Your task to perform on an android device: install app "Skype" Image 0: 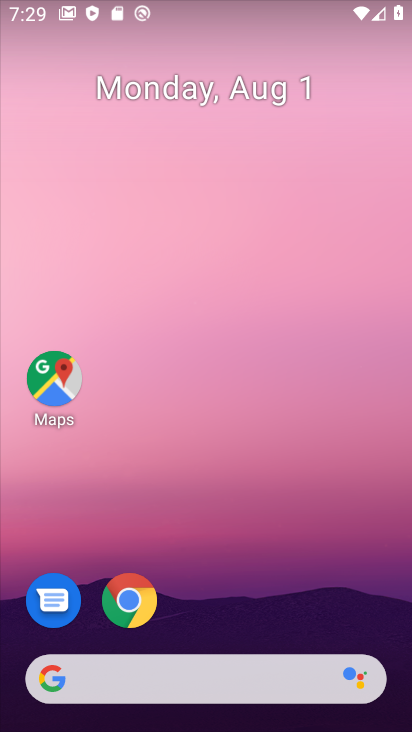
Step 0: drag from (200, 604) to (202, 31)
Your task to perform on an android device: install app "Skype" Image 1: 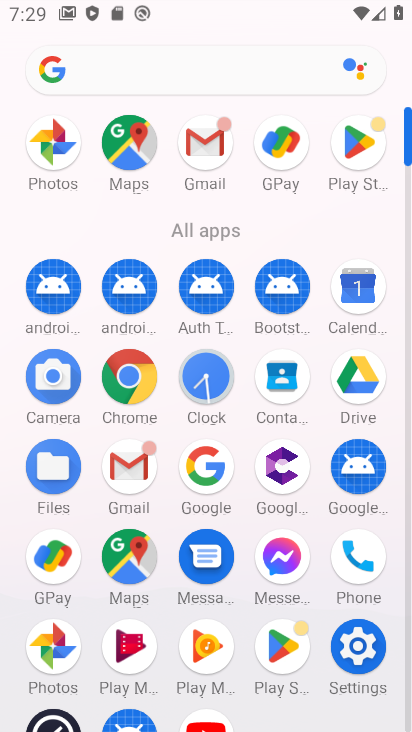
Step 1: click (349, 187)
Your task to perform on an android device: install app "Skype" Image 2: 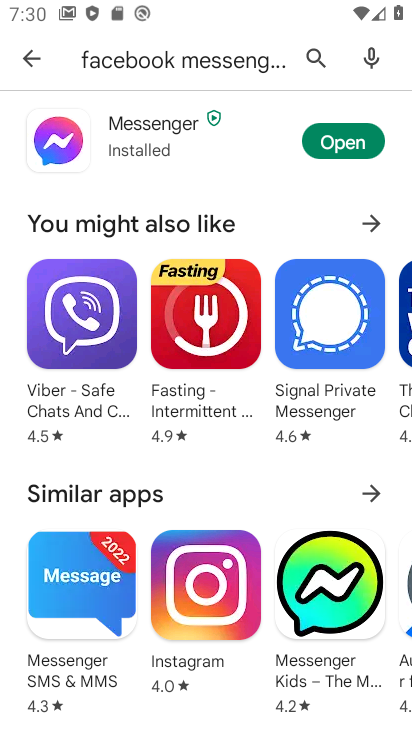
Step 2: click (30, 54)
Your task to perform on an android device: install app "Skype" Image 3: 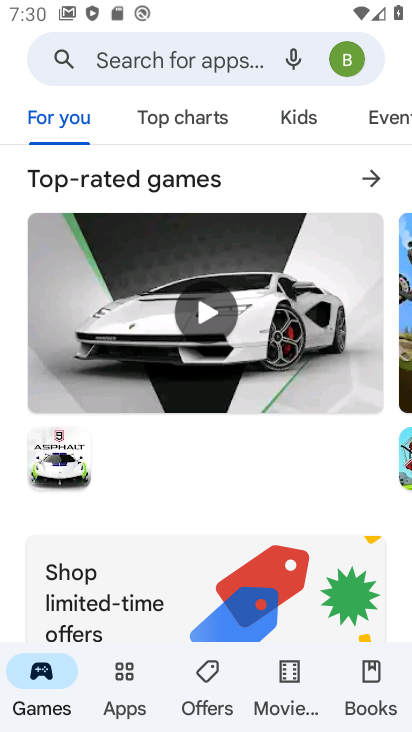
Step 3: click (148, 69)
Your task to perform on an android device: install app "Skype" Image 4: 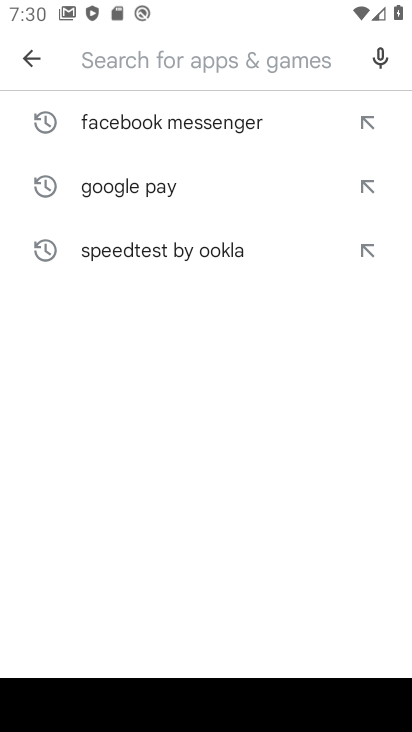
Step 4: type "Skype"
Your task to perform on an android device: install app "Skype" Image 5: 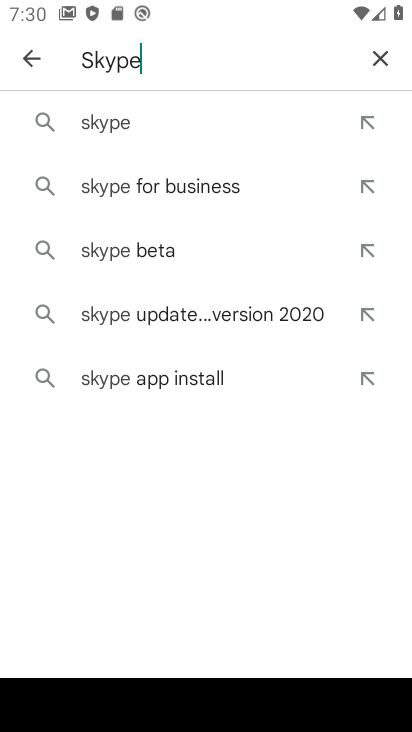
Step 5: click (106, 130)
Your task to perform on an android device: install app "Skype" Image 6: 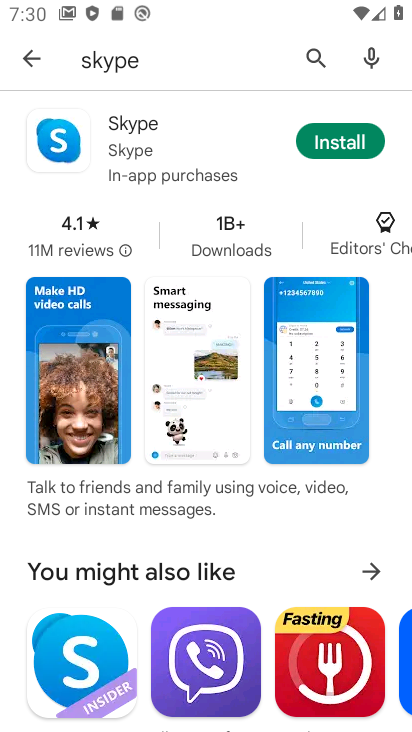
Step 6: click (358, 141)
Your task to perform on an android device: install app "Skype" Image 7: 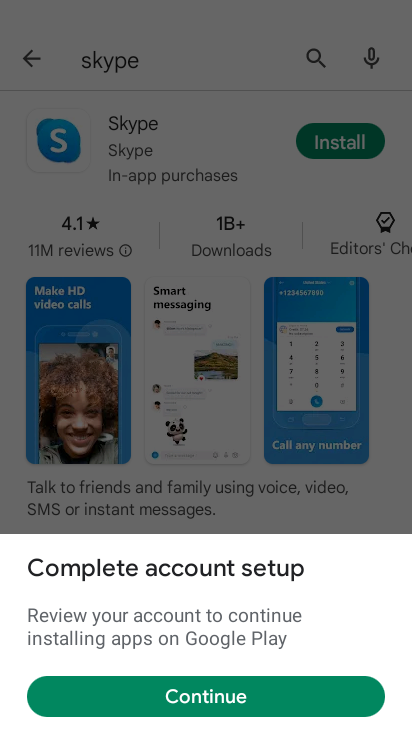
Step 7: click (181, 693)
Your task to perform on an android device: install app "Skype" Image 8: 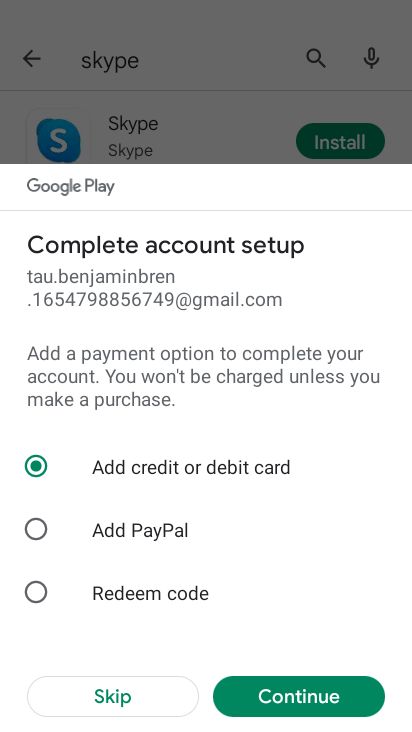
Step 8: click (109, 697)
Your task to perform on an android device: install app "Skype" Image 9: 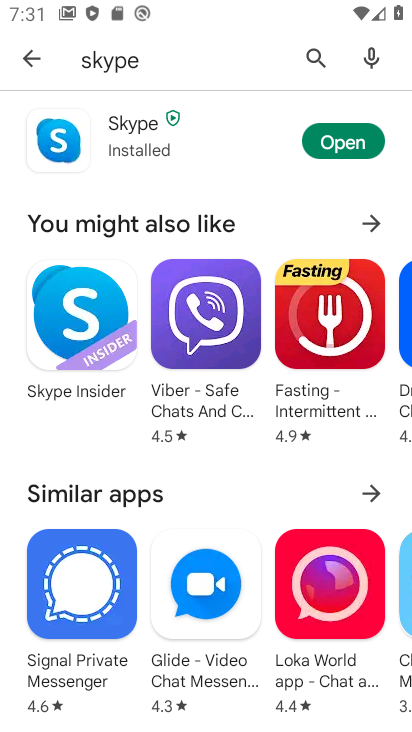
Step 9: click (317, 143)
Your task to perform on an android device: install app "Skype" Image 10: 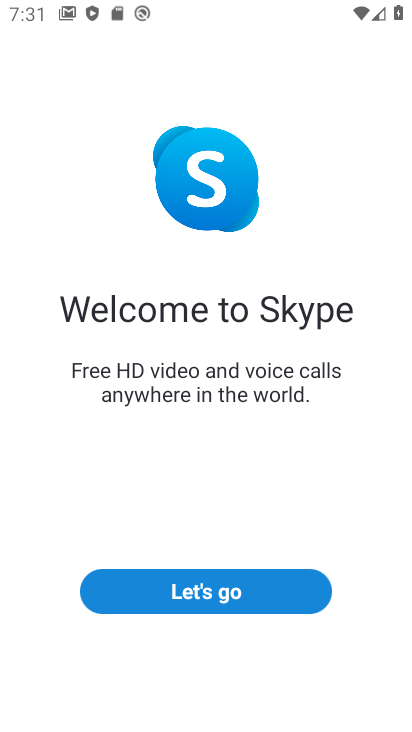
Step 10: task complete